Your task to perform on an android device: Go to display settings Image 0: 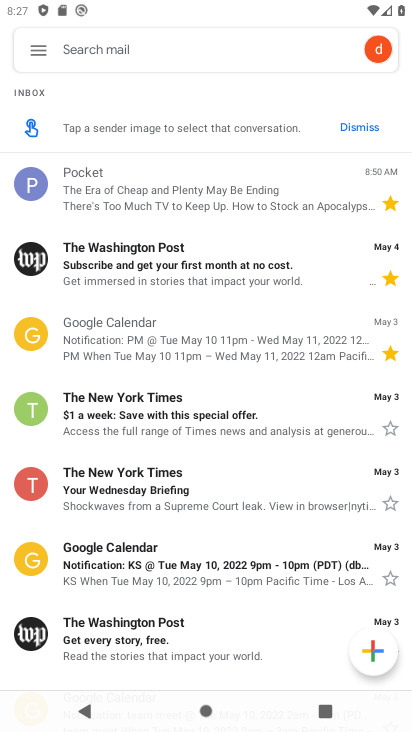
Step 0: press home button
Your task to perform on an android device: Go to display settings Image 1: 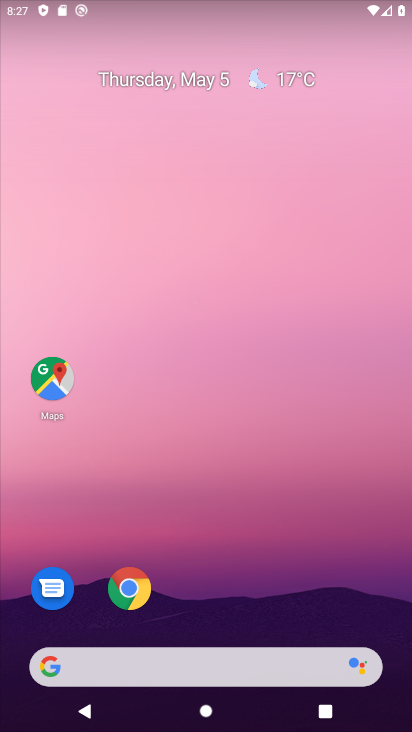
Step 1: drag from (244, 520) to (285, 230)
Your task to perform on an android device: Go to display settings Image 2: 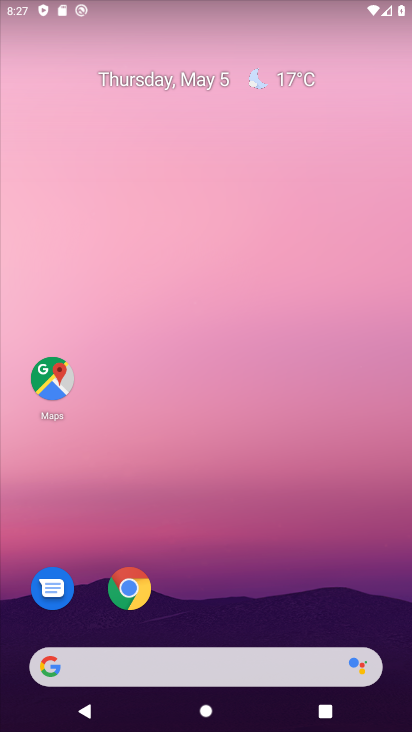
Step 2: drag from (226, 600) to (242, 231)
Your task to perform on an android device: Go to display settings Image 3: 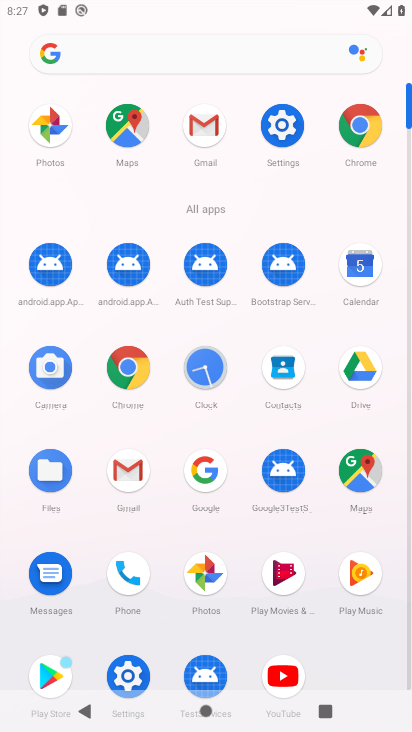
Step 3: click (292, 126)
Your task to perform on an android device: Go to display settings Image 4: 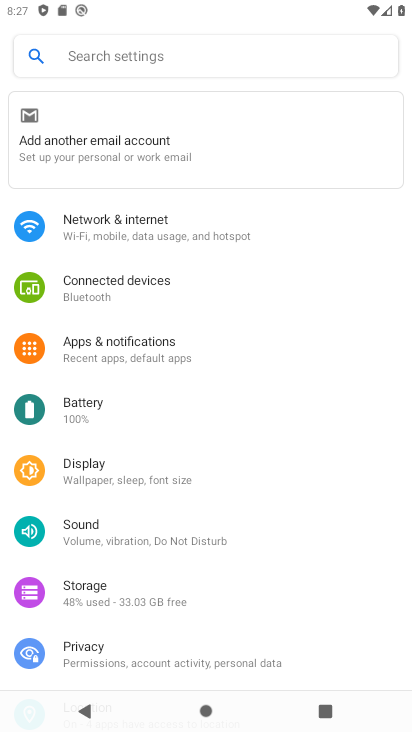
Step 4: click (114, 482)
Your task to perform on an android device: Go to display settings Image 5: 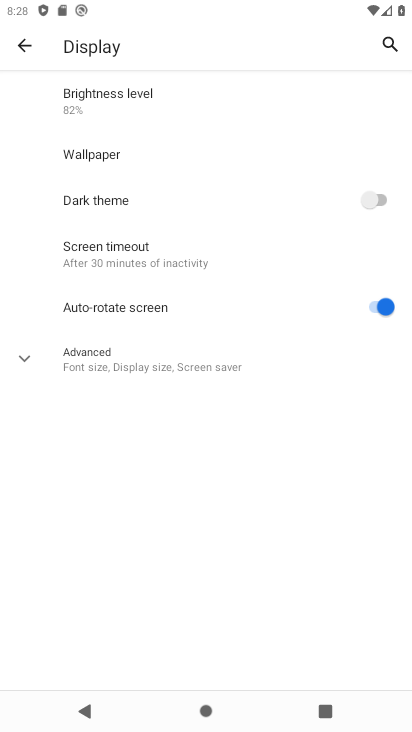
Step 5: task complete